Your task to perform on an android device: Go to internet settings Image 0: 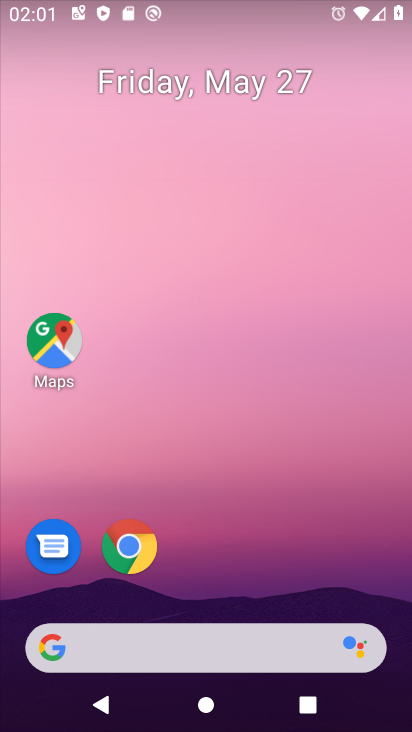
Step 0: press home button
Your task to perform on an android device: Go to internet settings Image 1: 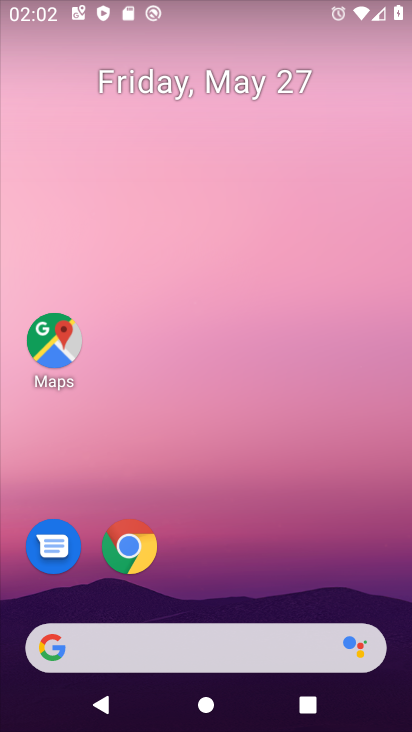
Step 1: drag from (266, 661) to (271, 146)
Your task to perform on an android device: Go to internet settings Image 2: 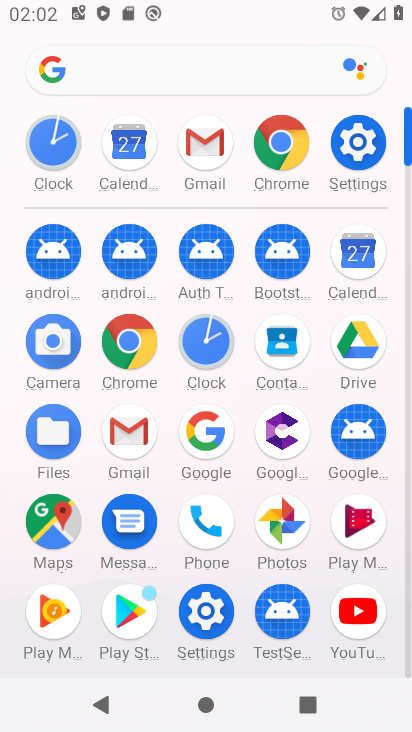
Step 2: click (357, 151)
Your task to perform on an android device: Go to internet settings Image 3: 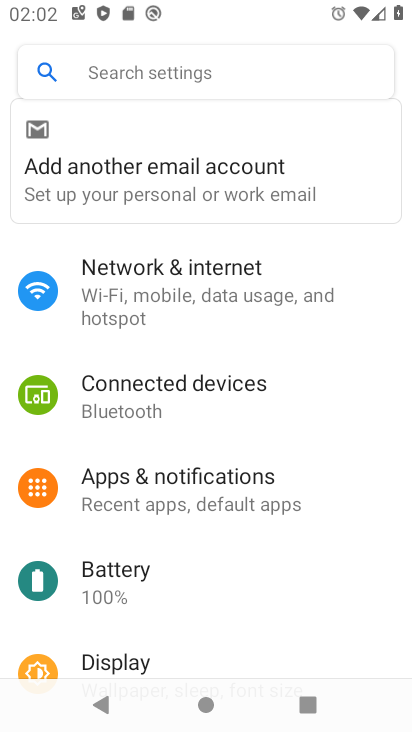
Step 3: click (162, 290)
Your task to perform on an android device: Go to internet settings Image 4: 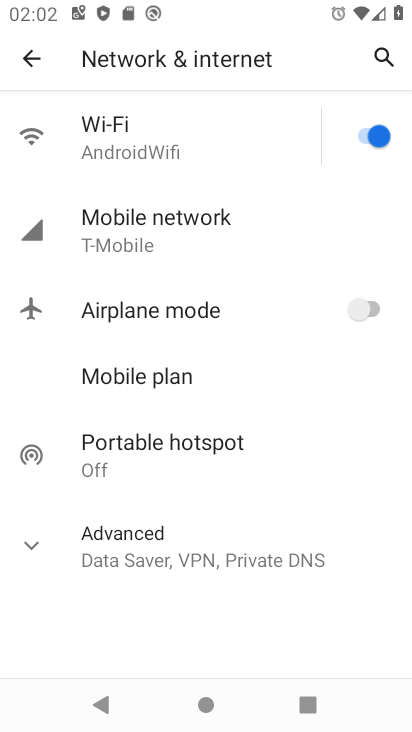
Step 4: task complete